Your task to perform on an android device: turn off translation in the chrome app Image 0: 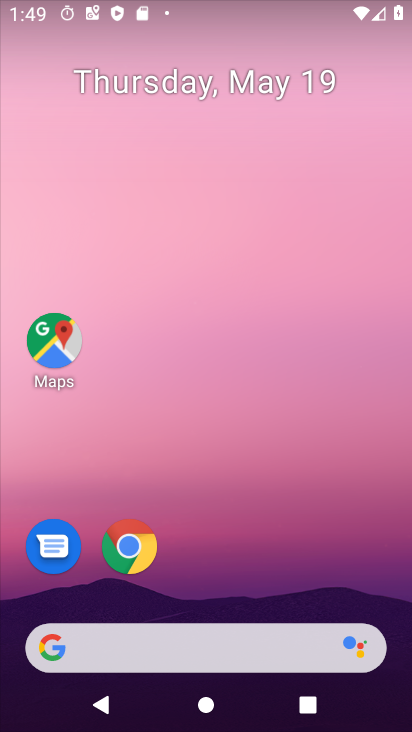
Step 0: click (130, 555)
Your task to perform on an android device: turn off translation in the chrome app Image 1: 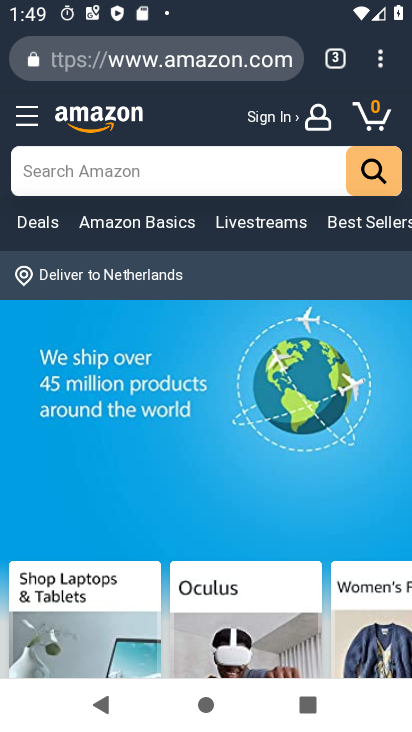
Step 1: click (372, 59)
Your task to perform on an android device: turn off translation in the chrome app Image 2: 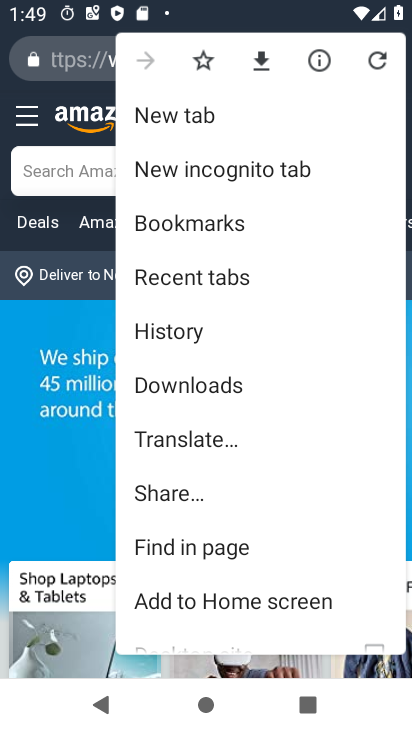
Step 2: drag from (184, 634) to (319, 163)
Your task to perform on an android device: turn off translation in the chrome app Image 3: 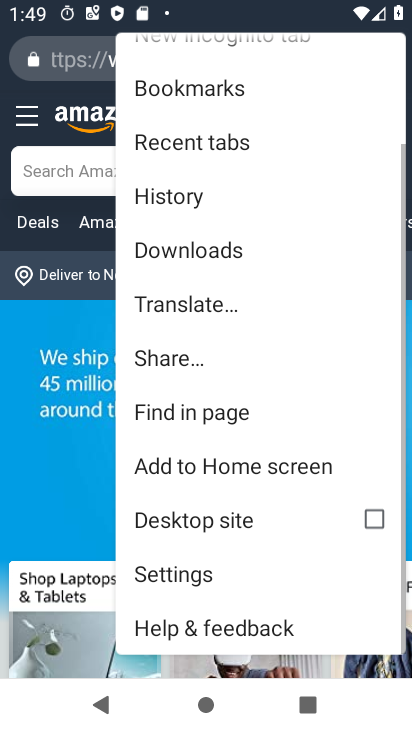
Step 3: click (187, 568)
Your task to perform on an android device: turn off translation in the chrome app Image 4: 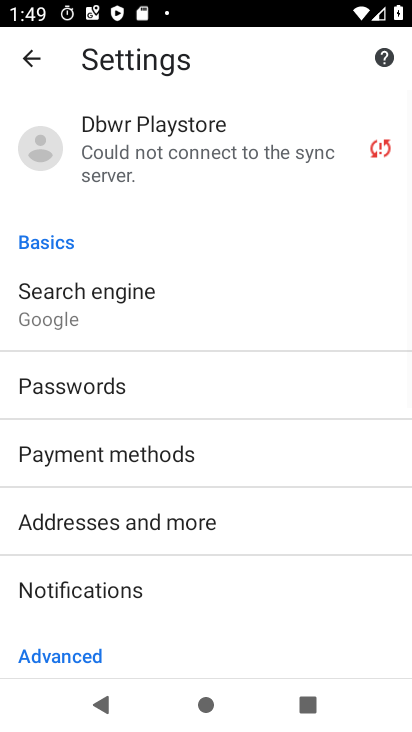
Step 4: drag from (187, 568) to (146, 18)
Your task to perform on an android device: turn off translation in the chrome app Image 5: 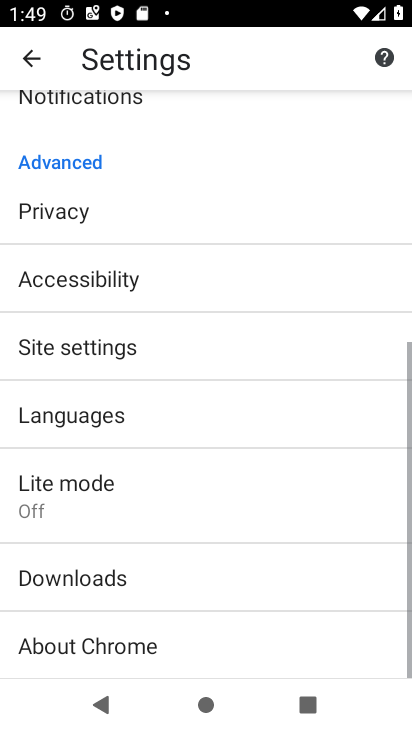
Step 5: click (41, 417)
Your task to perform on an android device: turn off translation in the chrome app Image 6: 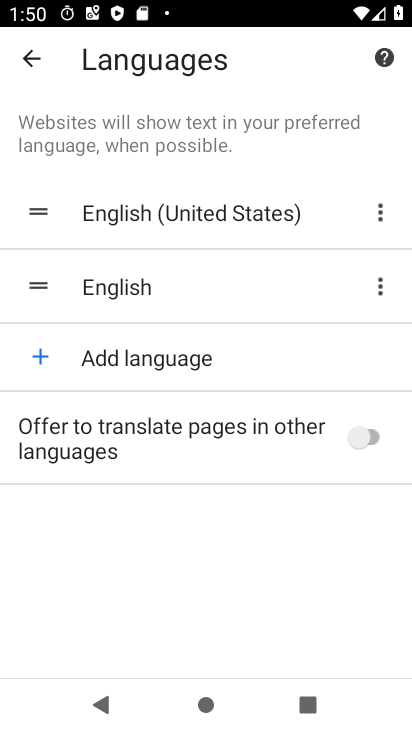
Step 6: task complete